Your task to perform on an android device: clear all cookies in the chrome app Image 0: 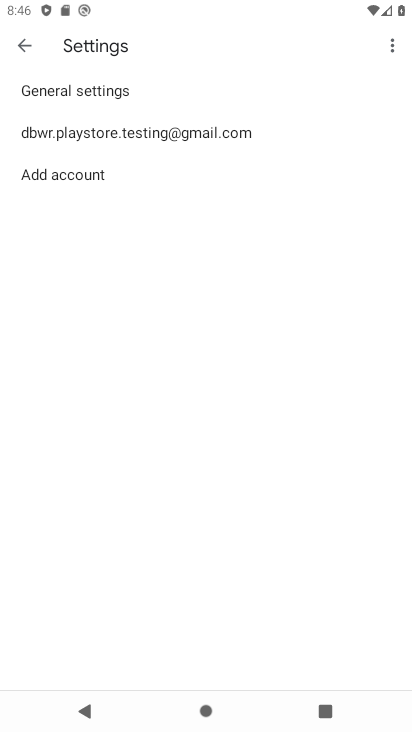
Step 0: press home button
Your task to perform on an android device: clear all cookies in the chrome app Image 1: 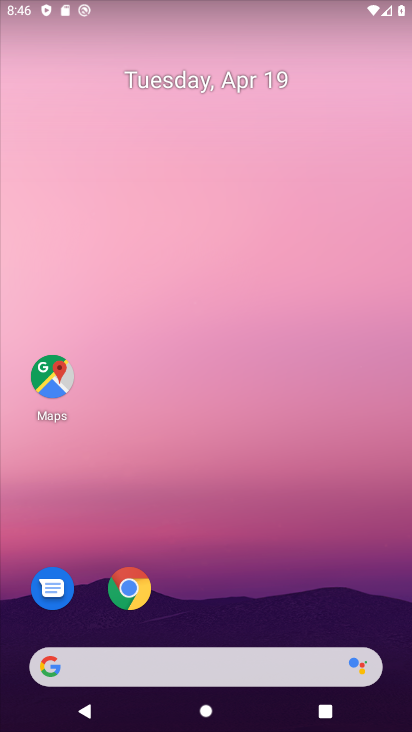
Step 1: click (126, 580)
Your task to perform on an android device: clear all cookies in the chrome app Image 2: 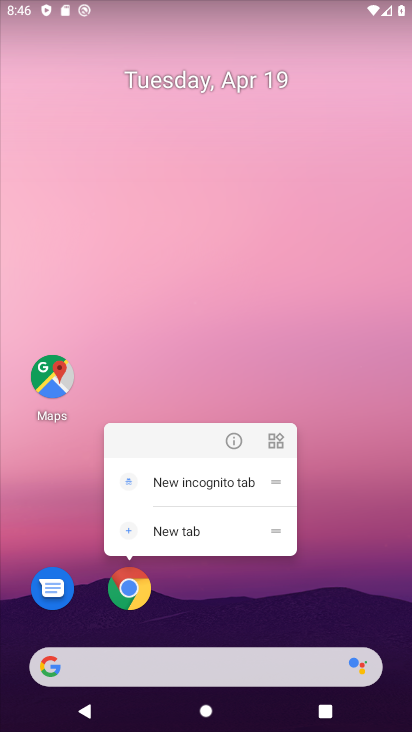
Step 2: click (124, 585)
Your task to perform on an android device: clear all cookies in the chrome app Image 3: 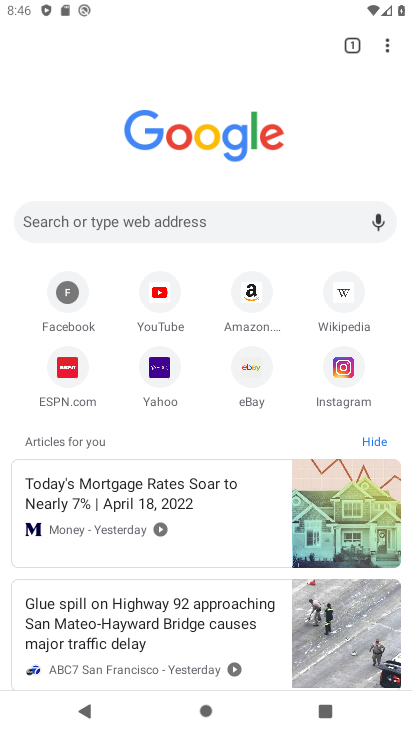
Step 3: click (385, 40)
Your task to perform on an android device: clear all cookies in the chrome app Image 4: 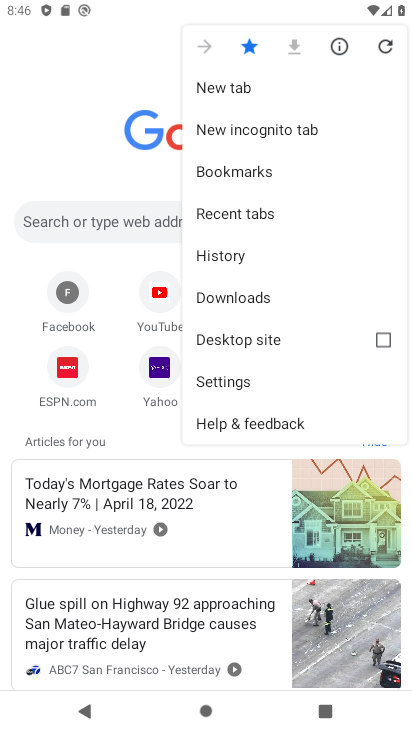
Step 4: click (252, 251)
Your task to perform on an android device: clear all cookies in the chrome app Image 5: 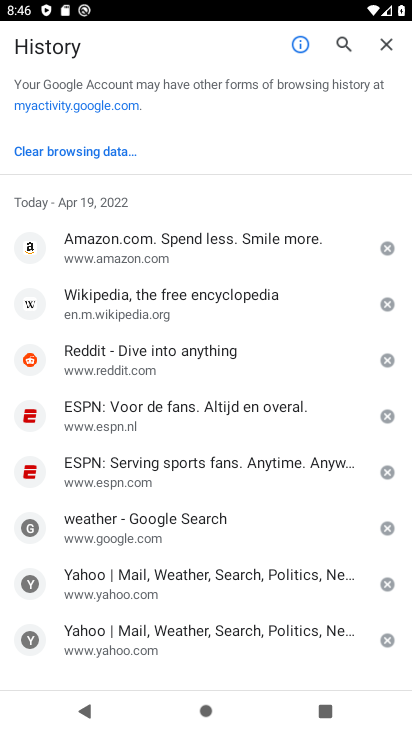
Step 5: click (73, 141)
Your task to perform on an android device: clear all cookies in the chrome app Image 6: 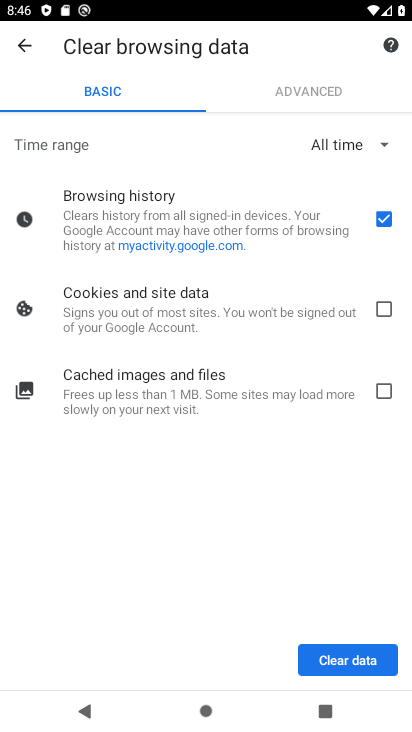
Step 6: click (382, 303)
Your task to perform on an android device: clear all cookies in the chrome app Image 7: 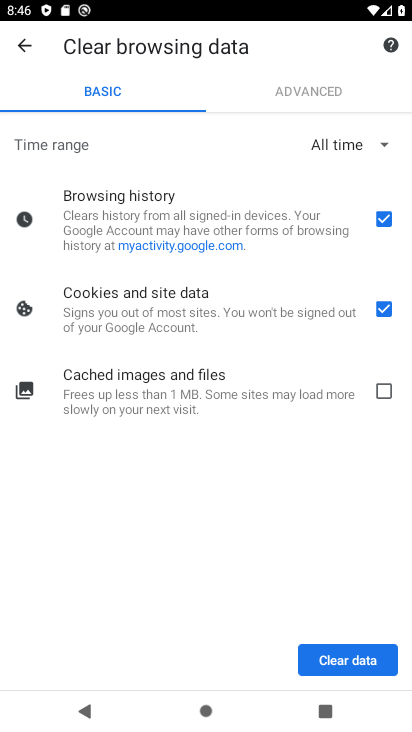
Step 7: click (383, 216)
Your task to perform on an android device: clear all cookies in the chrome app Image 8: 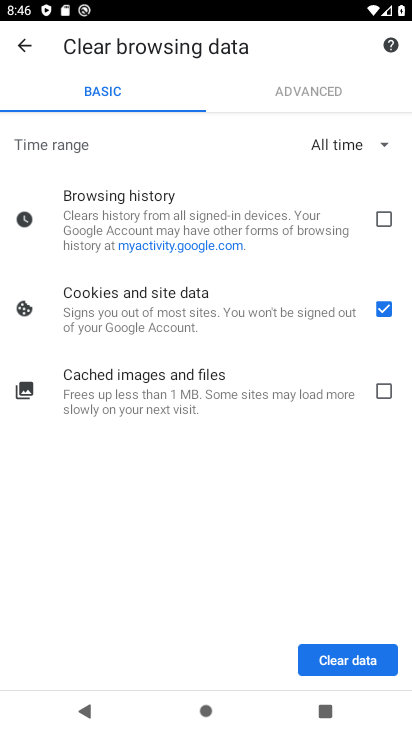
Step 8: click (348, 658)
Your task to perform on an android device: clear all cookies in the chrome app Image 9: 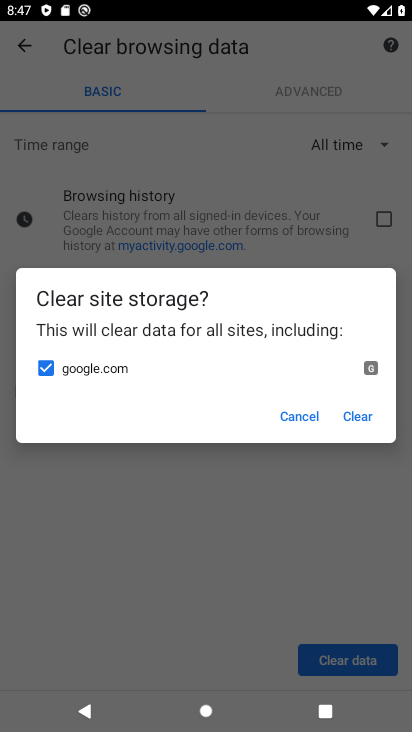
Step 9: click (356, 421)
Your task to perform on an android device: clear all cookies in the chrome app Image 10: 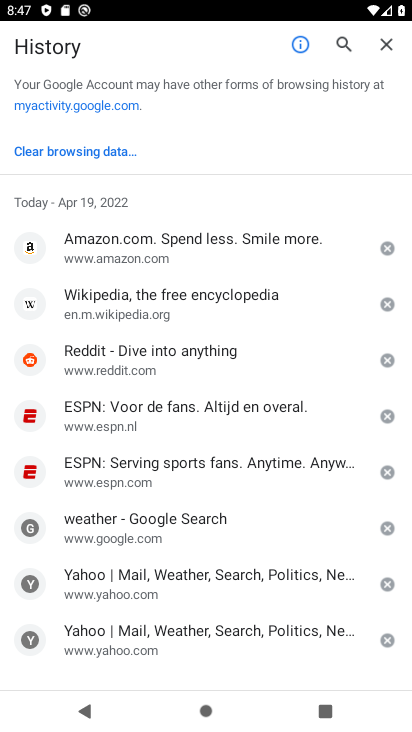
Step 10: task complete